Your task to perform on an android device: Show me popular games on the Play Store Image 0: 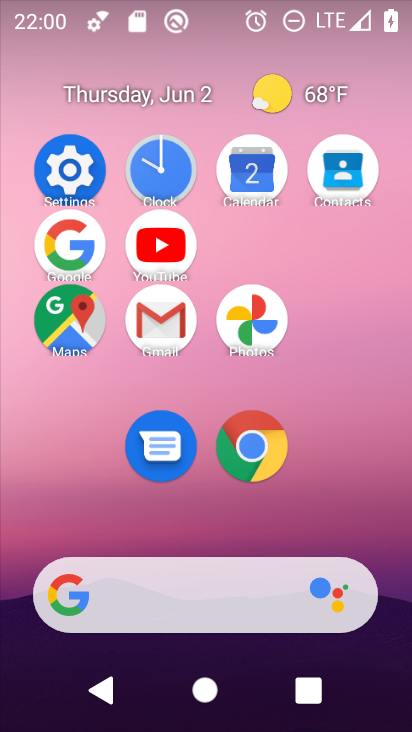
Step 0: drag from (321, 494) to (292, 177)
Your task to perform on an android device: Show me popular games on the Play Store Image 1: 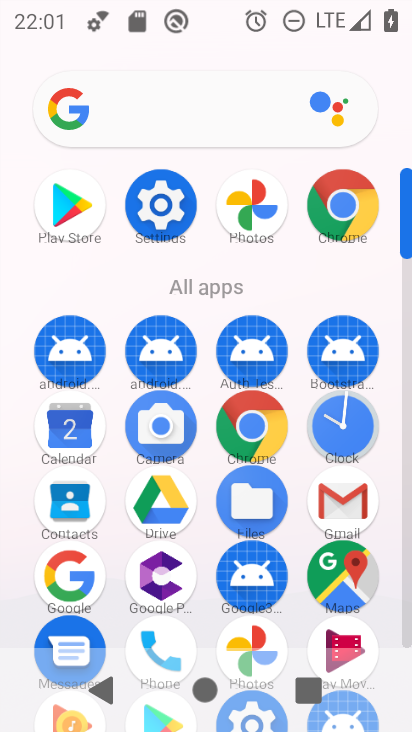
Step 1: click (83, 243)
Your task to perform on an android device: Show me popular games on the Play Store Image 2: 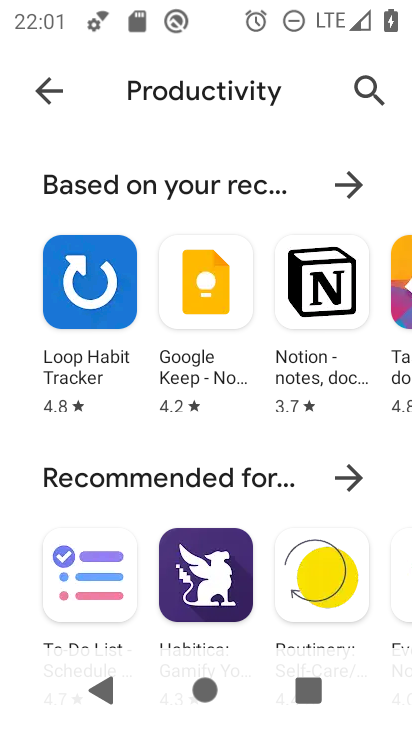
Step 2: click (48, 97)
Your task to perform on an android device: Show me popular games on the Play Store Image 3: 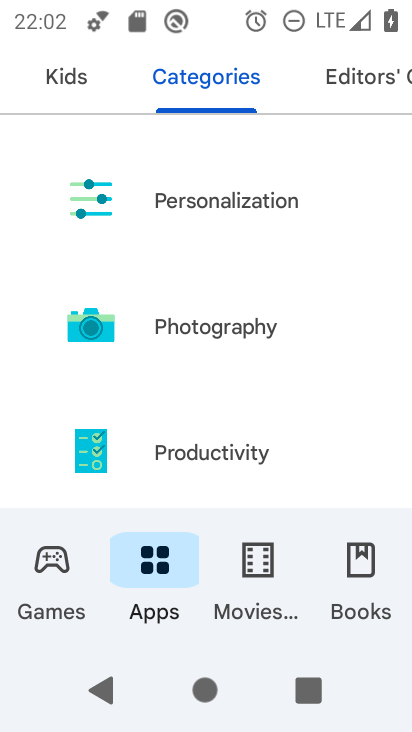
Step 3: click (68, 597)
Your task to perform on an android device: Show me popular games on the Play Store Image 4: 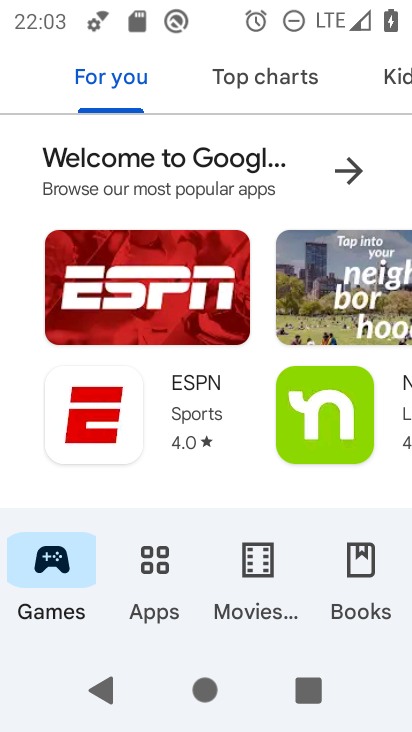
Step 4: drag from (214, 445) to (237, 189)
Your task to perform on an android device: Show me popular games on the Play Store Image 5: 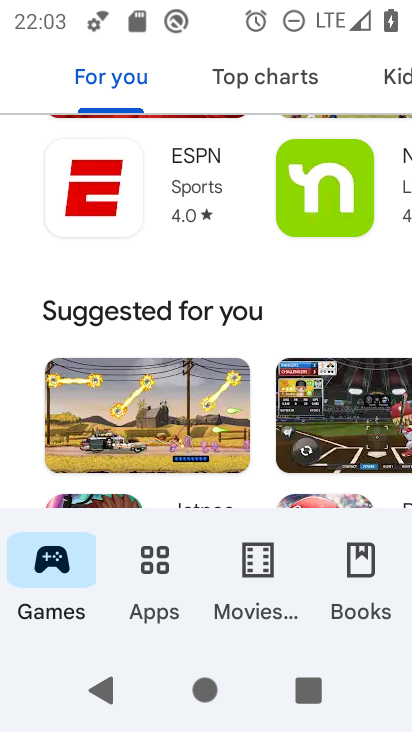
Step 5: drag from (286, 411) to (324, 98)
Your task to perform on an android device: Show me popular games on the Play Store Image 6: 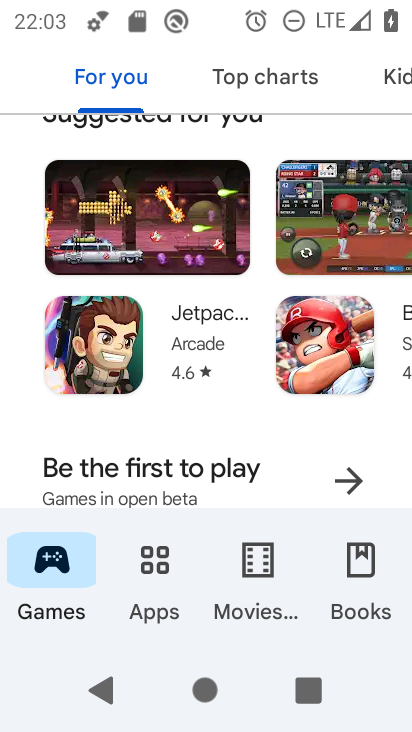
Step 6: drag from (297, 480) to (247, 199)
Your task to perform on an android device: Show me popular games on the Play Store Image 7: 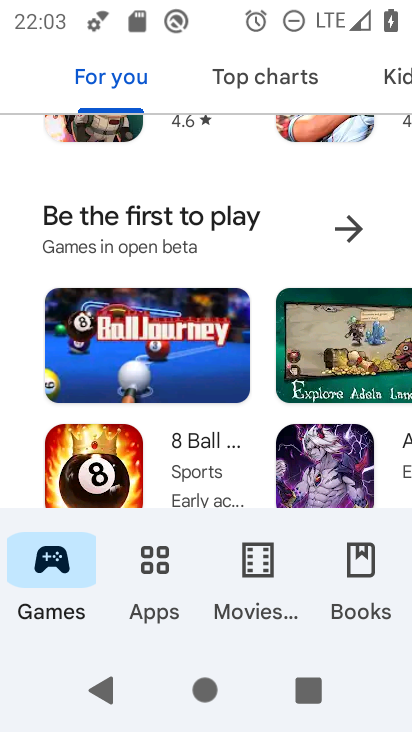
Step 7: drag from (263, 233) to (288, 602)
Your task to perform on an android device: Show me popular games on the Play Store Image 8: 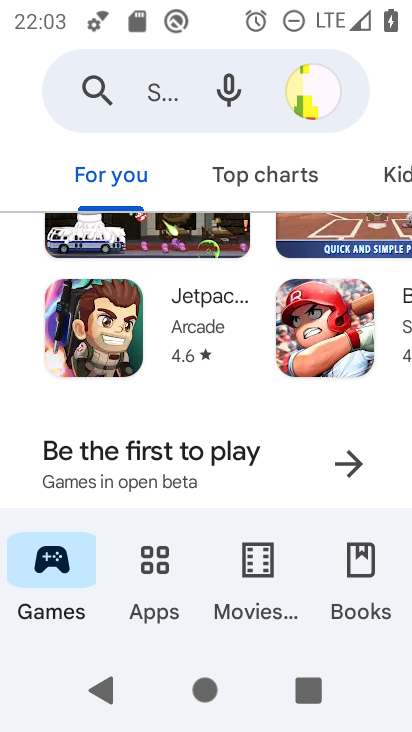
Step 8: drag from (227, 238) to (252, 572)
Your task to perform on an android device: Show me popular games on the Play Store Image 9: 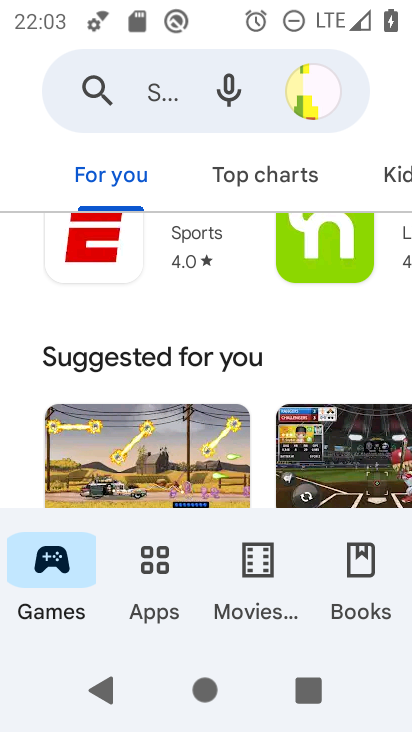
Step 9: drag from (235, 286) to (267, 597)
Your task to perform on an android device: Show me popular games on the Play Store Image 10: 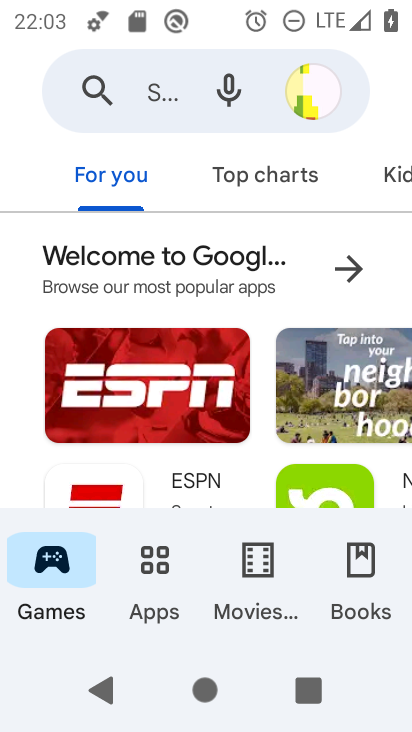
Step 10: drag from (229, 334) to (241, 538)
Your task to perform on an android device: Show me popular games on the Play Store Image 11: 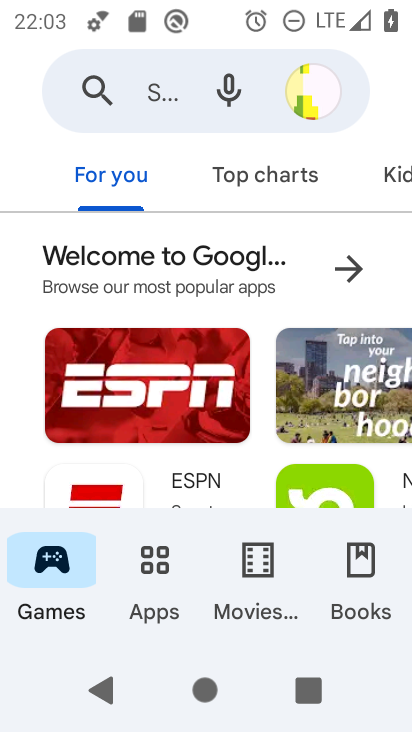
Step 11: drag from (308, 451) to (295, 190)
Your task to perform on an android device: Show me popular games on the Play Store Image 12: 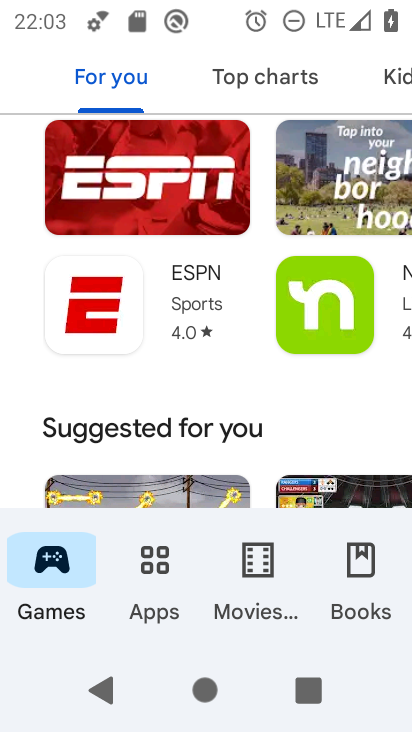
Step 12: drag from (232, 432) to (243, 180)
Your task to perform on an android device: Show me popular games on the Play Store Image 13: 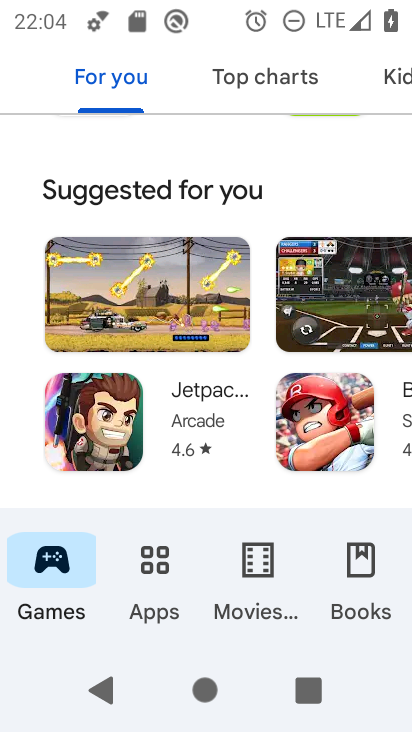
Step 13: drag from (268, 424) to (279, 184)
Your task to perform on an android device: Show me popular games on the Play Store Image 14: 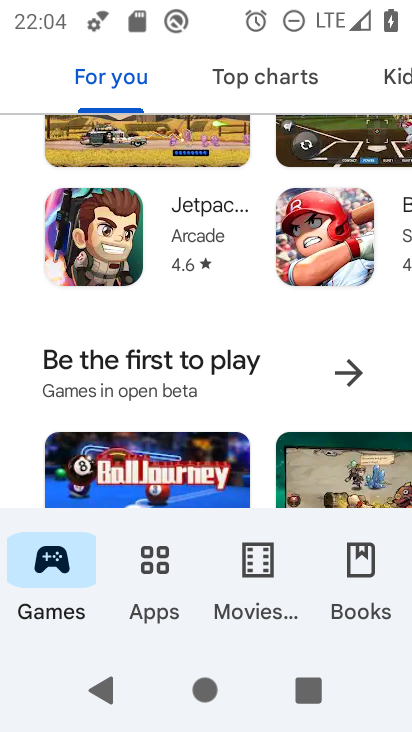
Step 14: drag from (232, 421) to (267, 198)
Your task to perform on an android device: Show me popular games on the Play Store Image 15: 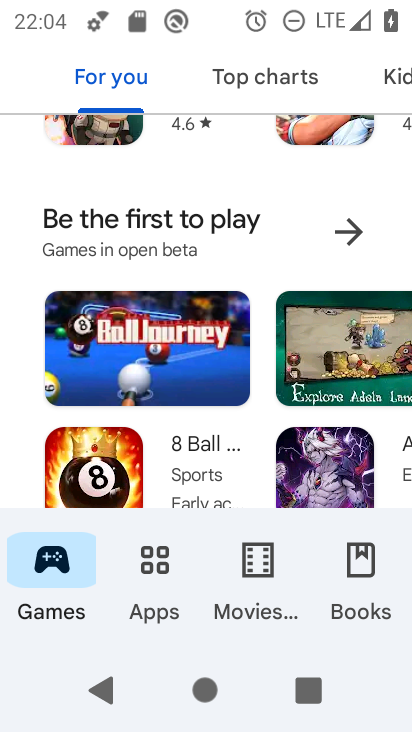
Step 15: drag from (210, 456) to (244, 193)
Your task to perform on an android device: Show me popular games on the Play Store Image 16: 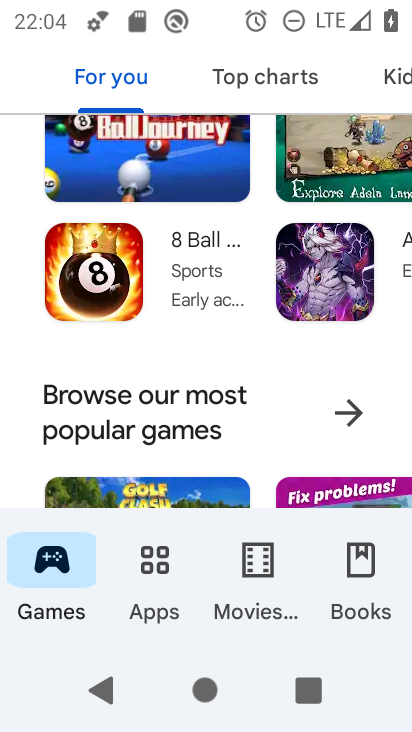
Step 16: drag from (156, 444) to (216, 306)
Your task to perform on an android device: Show me popular games on the Play Store Image 17: 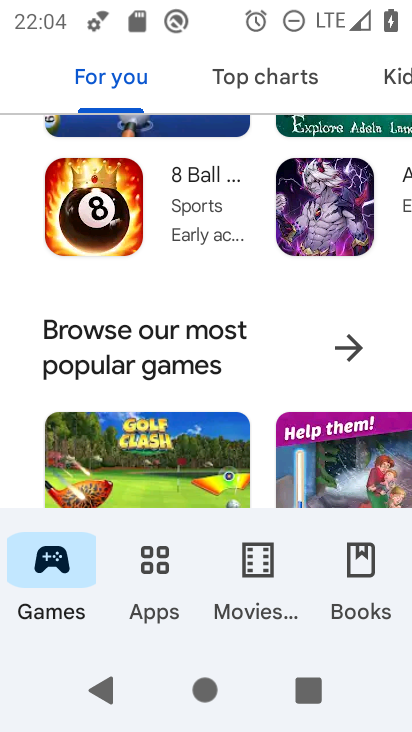
Step 17: click (219, 353)
Your task to perform on an android device: Show me popular games on the Play Store Image 18: 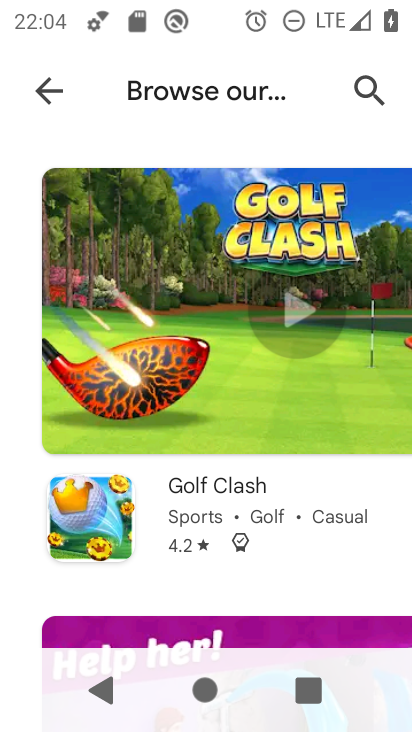
Step 18: task complete